Your task to perform on an android device: Go to calendar. Show me events next week Image 0: 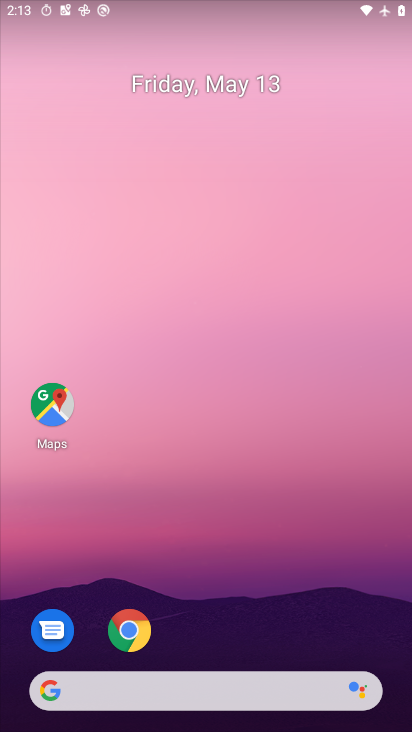
Step 0: drag from (285, 620) to (298, 258)
Your task to perform on an android device: Go to calendar. Show me events next week Image 1: 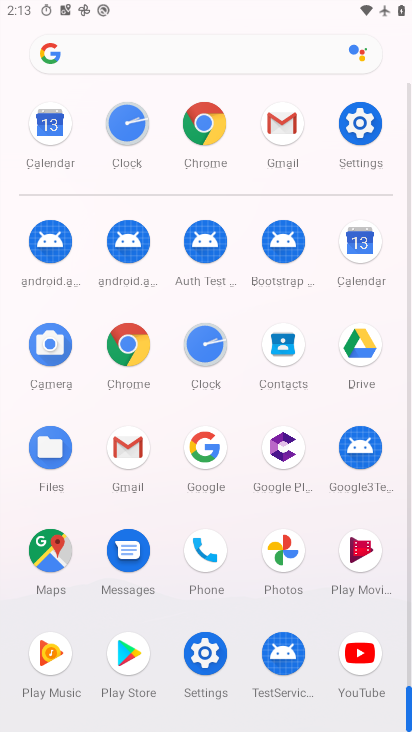
Step 1: click (356, 275)
Your task to perform on an android device: Go to calendar. Show me events next week Image 2: 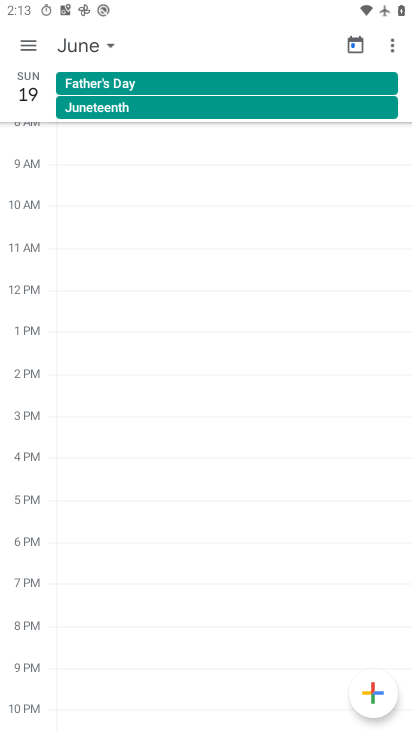
Step 2: click (89, 55)
Your task to perform on an android device: Go to calendar. Show me events next week Image 3: 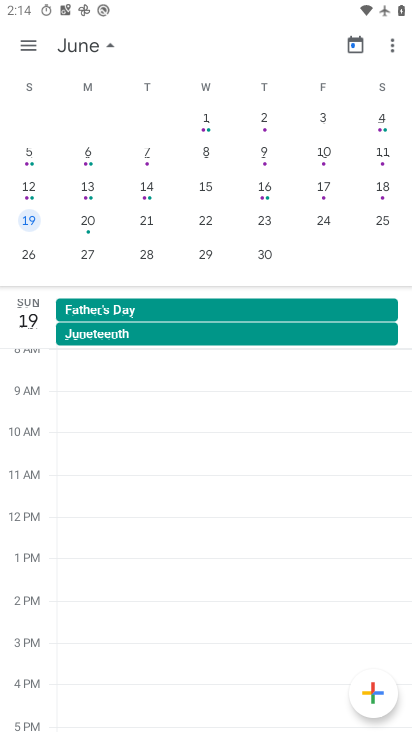
Step 3: drag from (350, 195) to (333, 264)
Your task to perform on an android device: Go to calendar. Show me events next week Image 4: 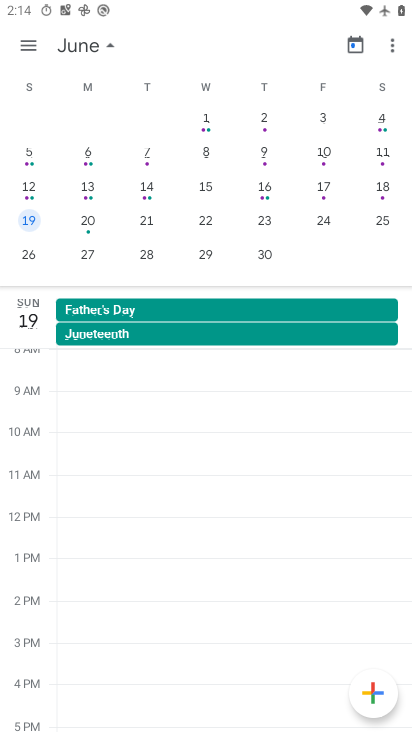
Step 4: click (28, 263)
Your task to perform on an android device: Go to calendar. Show me events next week Image 5: 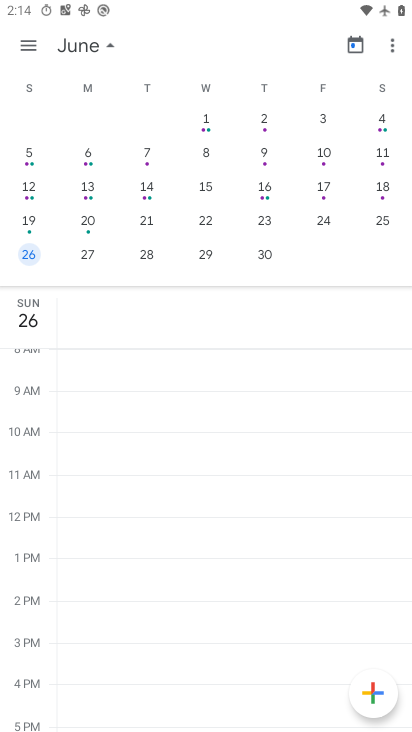
Step 5: click (29, 39)
Your task to perform on an android device: Go to calendar. Show me events next week Image 6: 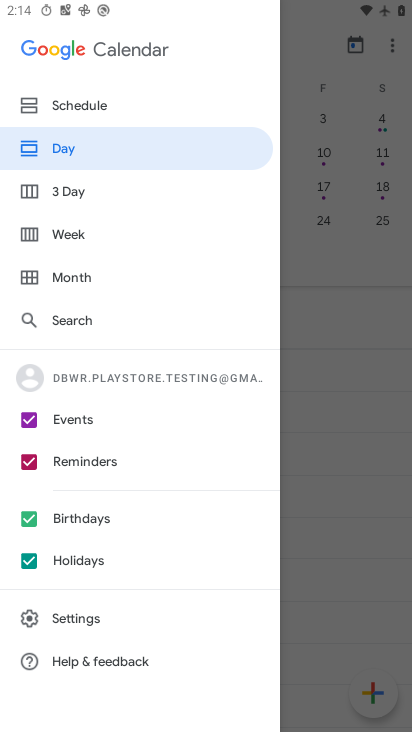
Step 6: click (99, 247)
Your task to perform on an android device: Go to calendar. Show me events next week Image 7: 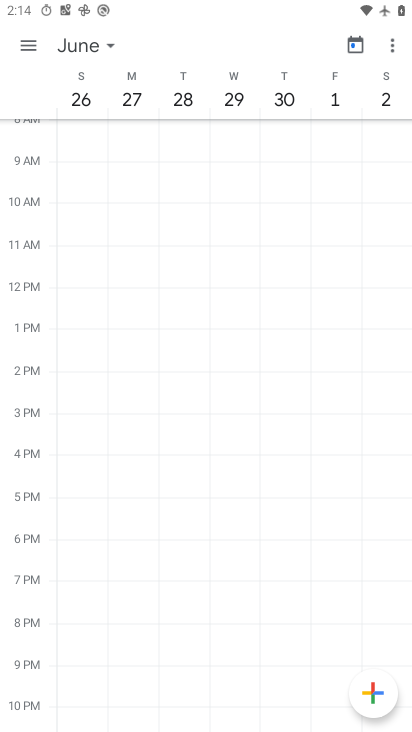
Step 7: task complete